Your task to perform on an android device: turn on showing notifications on the lock screen Image 0: 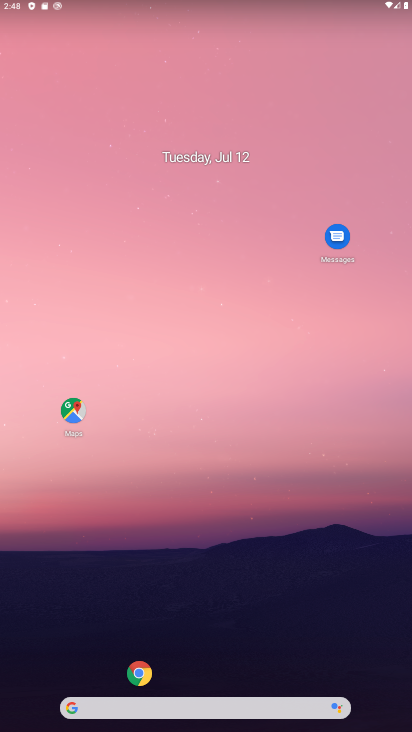
Step 0: drag from (66, 582) to (344, 30)
Your task to perform on an android device: turn on showing notifications on the lock screen Image 1: 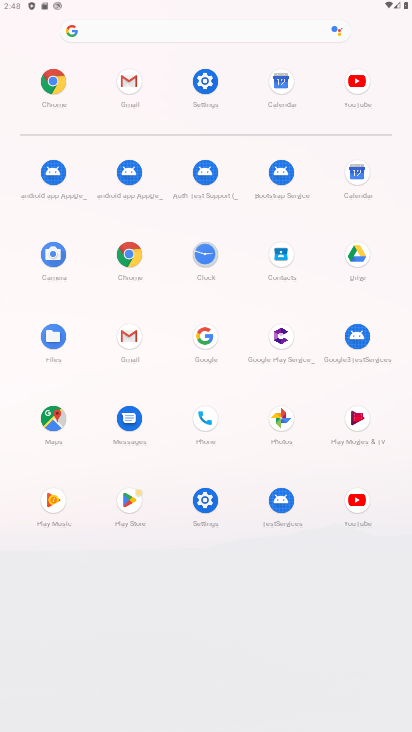
Step 1: click (202, 503)
Your task to perform on an android device: turn on showing notifications on the lock screen Image 2: 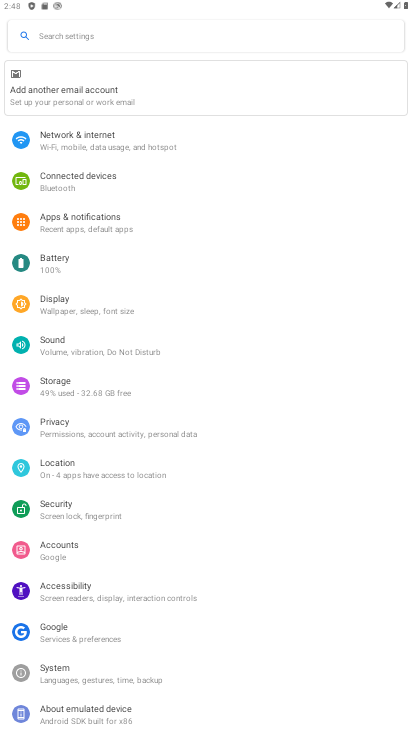
Step 2: click (86, 219)
Your task to perform on an android device: turn on showing notifications on the lock screen Image 3: 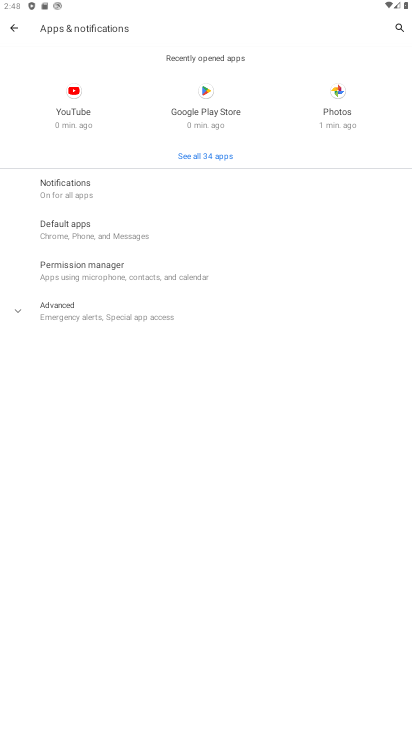
Step 3: click (75, 299)
Your task to perform on an android device: turn on showing notifications on the lock screen Image 4: 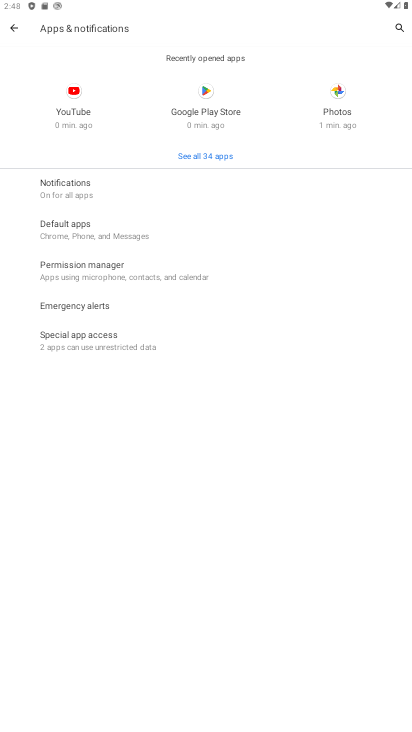
Step 4: click (86, 338)
Your task to perform on an android device: turn on showing notifications on the lock screen Image 5: 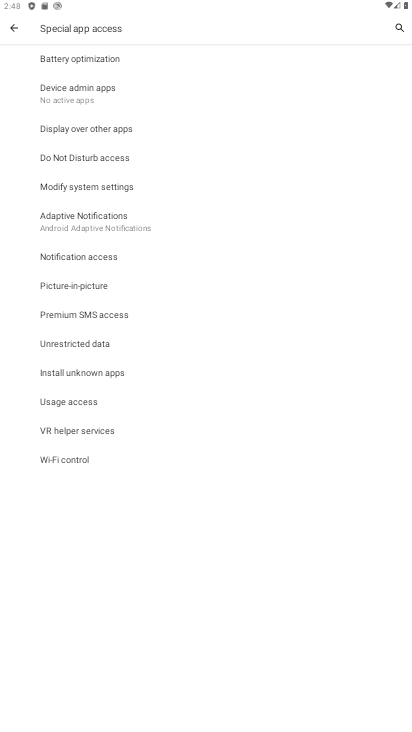
Step 5: click (15, 32)
Your task to perform on an android device: turn on showing notifications on the lock screen Image 6: 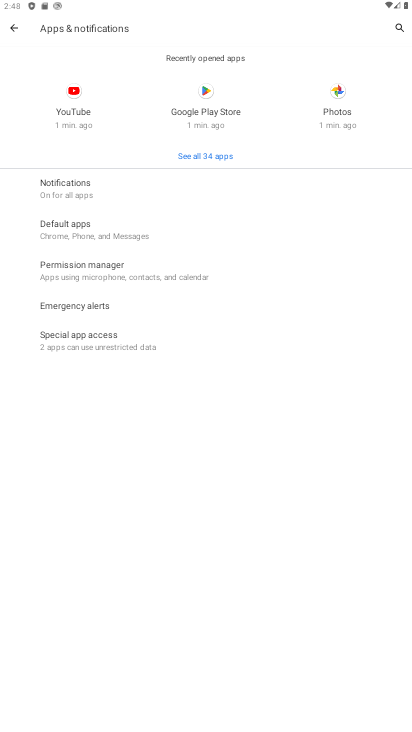
Step 6: click (63, 191)
Your task to perform on an android device: turn on showing notifications on the lock screen Image 7: 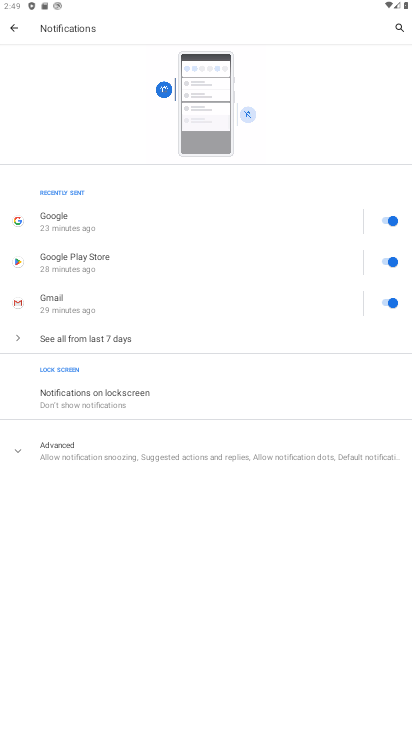
Step 7: click (153, 392)
Your task to perform on an android device: turn on showing notifications on the lock screen Image 8: 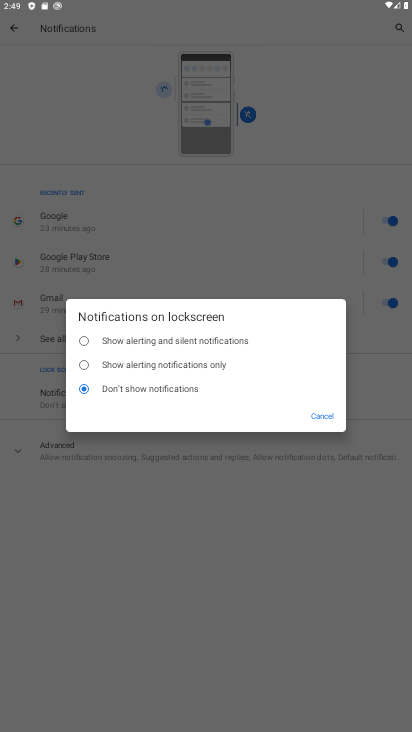
Step 8: click (160, 362)
Your task to perform on an android device: turn on showing notifications on the lock screen Image 9: 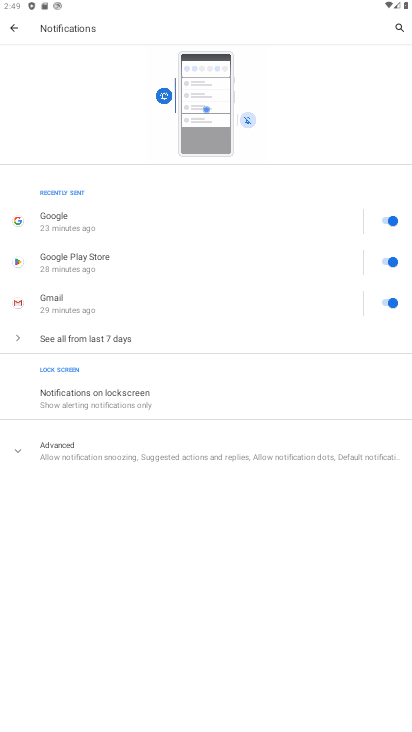
Step 9: task complete